Your task to perform on an android device: Open Reddit.com Image 0: 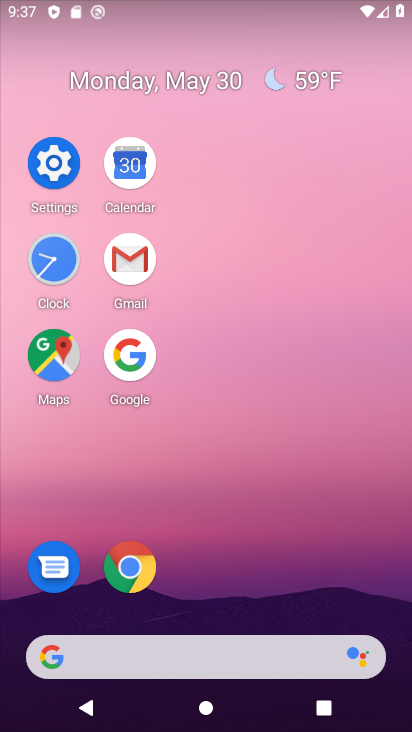
Step 0: click (147, 575)
Your task to perform on an android device: Open Reddit.com Image 1: 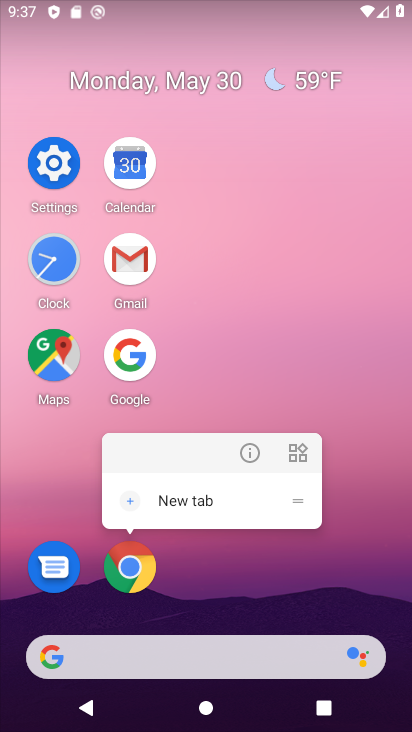
Step 1: click (147, 575)
Your task to perform on an android device: Open Reddit.com Image 2: 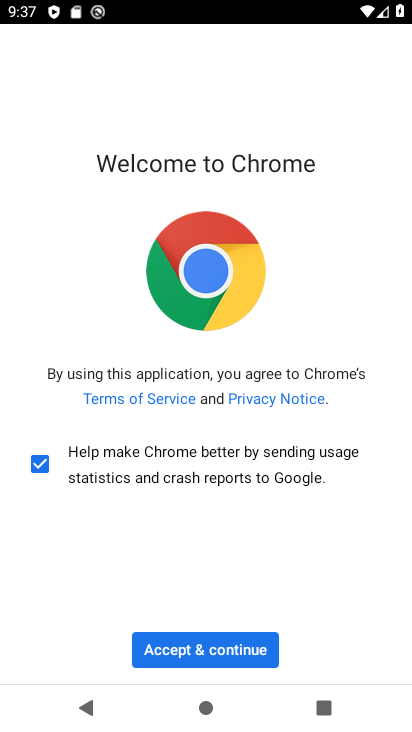
Step 2: click (237, 659)
Your task to perform on an android device: Open Reddit.com Image 3: 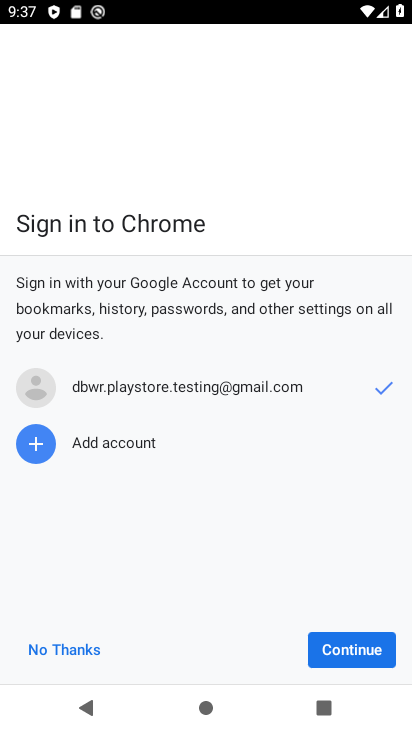
Step 3: click (393, 648)
Your task to perform on an android device: Open Reddit.com Image 4: 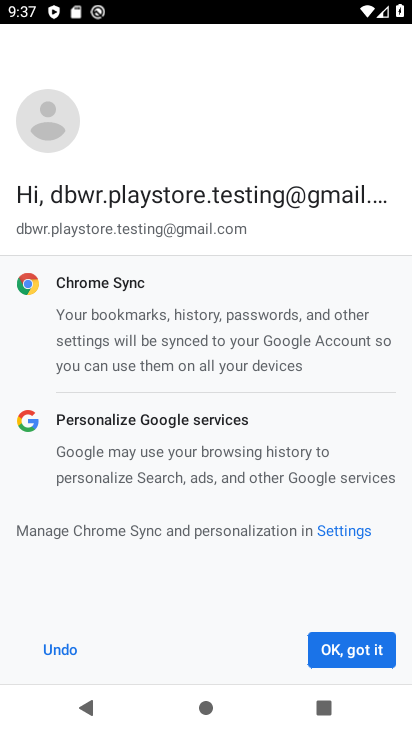
Step 4: click (374, 646)
Your task to perform on an android device: Open Reddit.com Image 5: 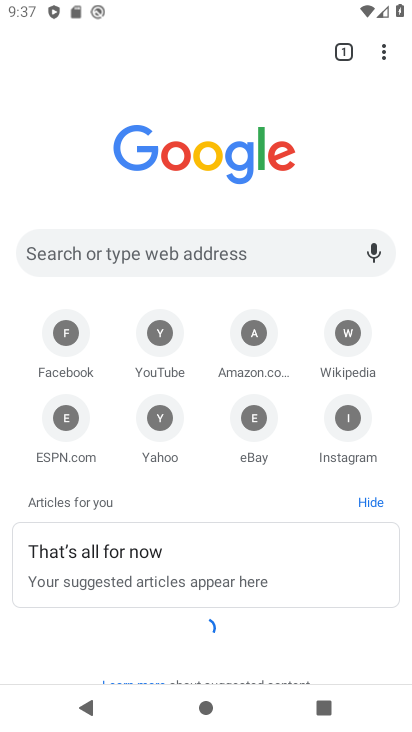
Step 5: click (255, 257)
Your task to perform on an android device: Open Reddit.com Image 6: 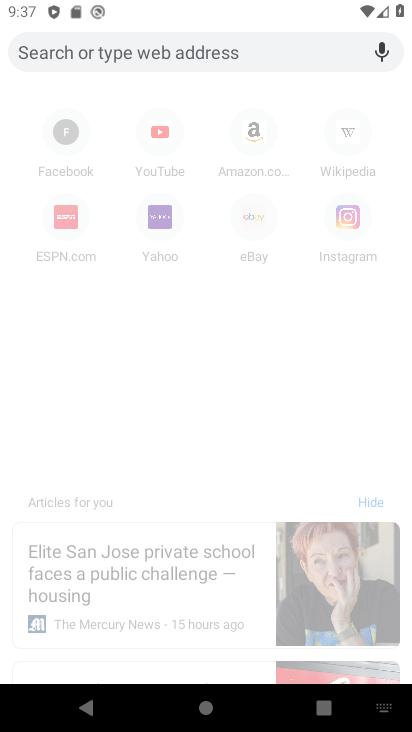
Step 6: type "reddit"
Your task to perform on an android device: Open Reddit.com Image 7: 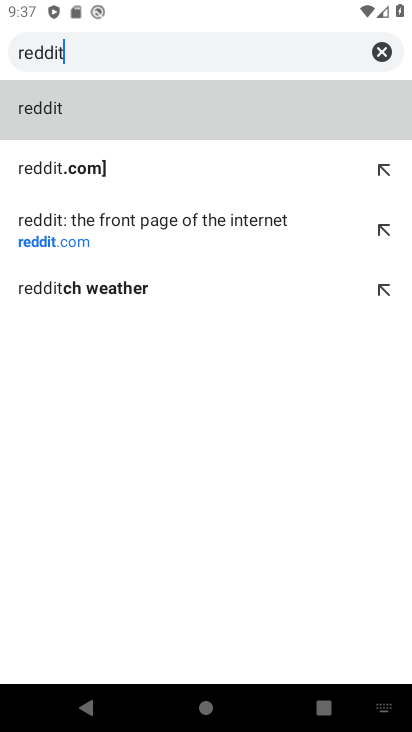
Step 7: click (68, 233)
Your task to perform on an android device: Open Reddit.com Image 8: 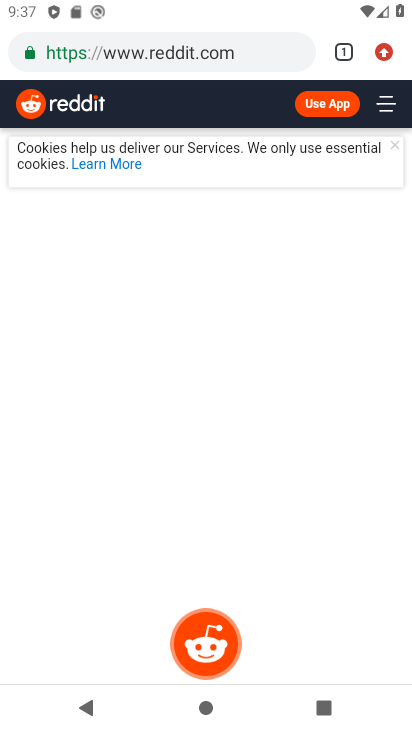
Step 8: task complete